Your task to perform on an android device: Open accessibility settings Image 0: 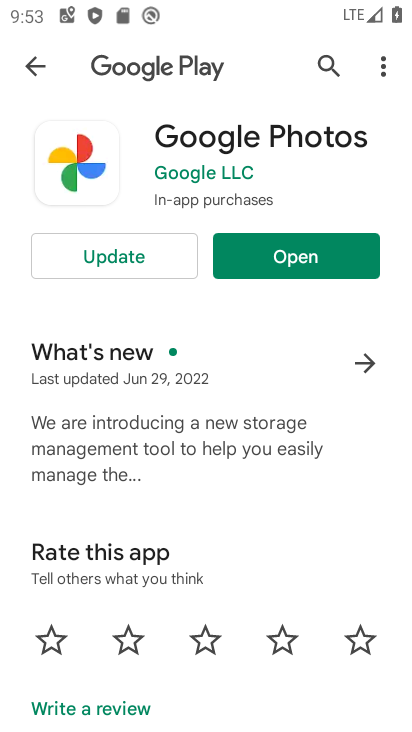
Step 0: press home button
Your task to perform on an android device: Open accessibility settings Image 1: 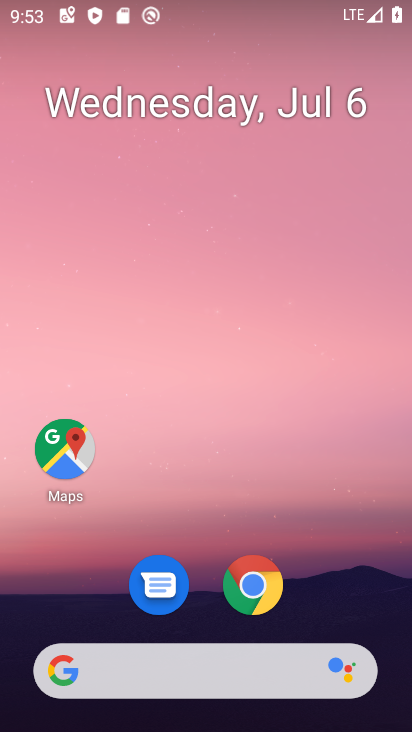
Step 1: drag from (200, 490) to (166, 0)
Your task to perform on an android device: Open accessibility settings Image 2: 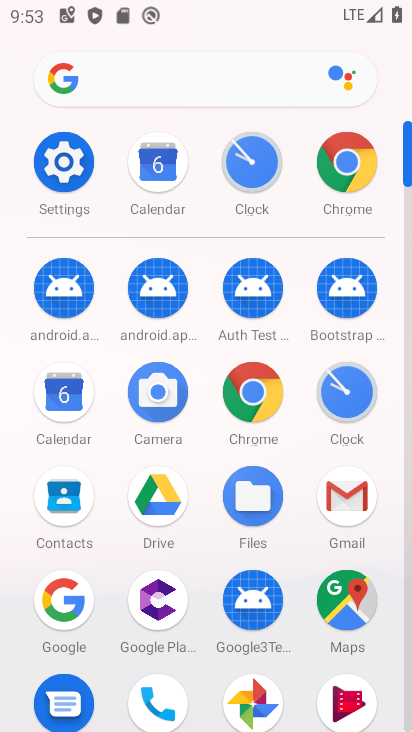
Step 2: click (65, 158)
Your task to perform on an android device: Open accessibility settings Image 3: 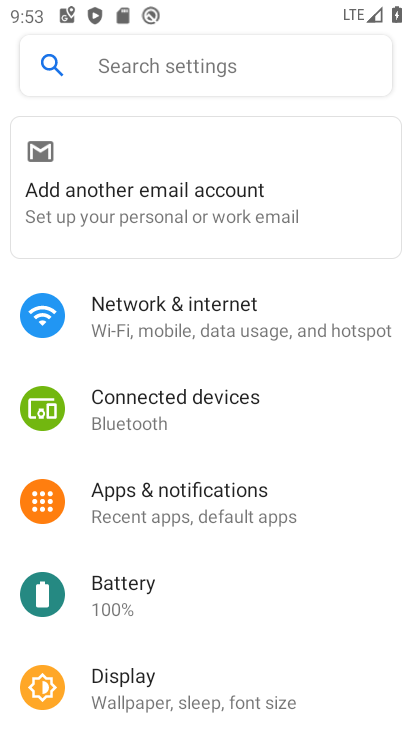
Step 3: drag from (194, 573) to (208, 111)
Your task to perform on an android device: Open accessibility settings Image 4: 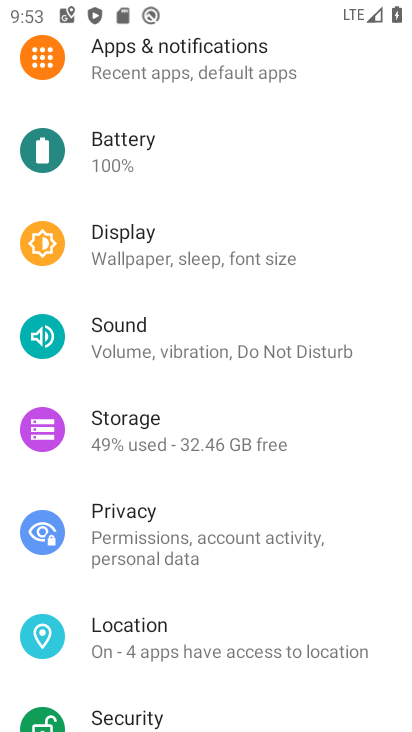
Step 4: drag from (250, 580) to (230, 89)
Your task to perform on an android device: Open accessibility settings Image 5: 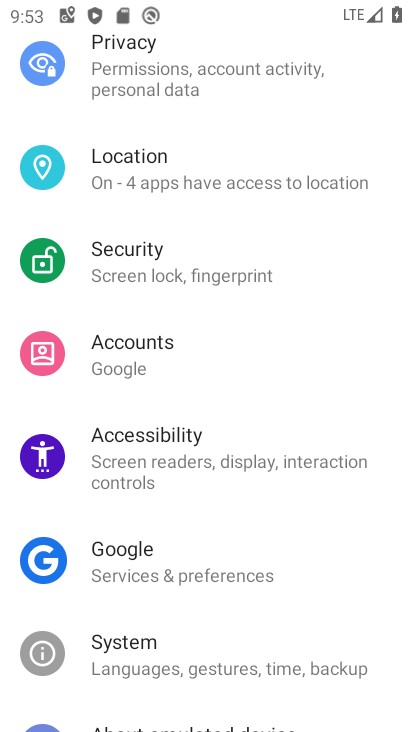
Step 5: click (242, 446)
Your task to perform on an android device: Open accessibility settings Image 6: 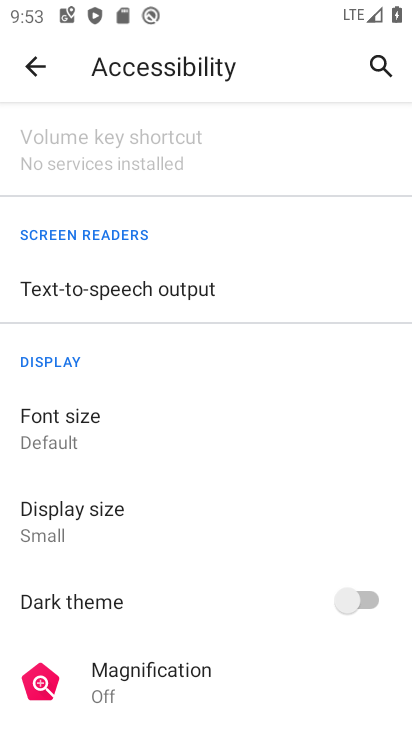
Step 6: task complete